Your task to perform on an android device: turn off airplane mode Image 0: 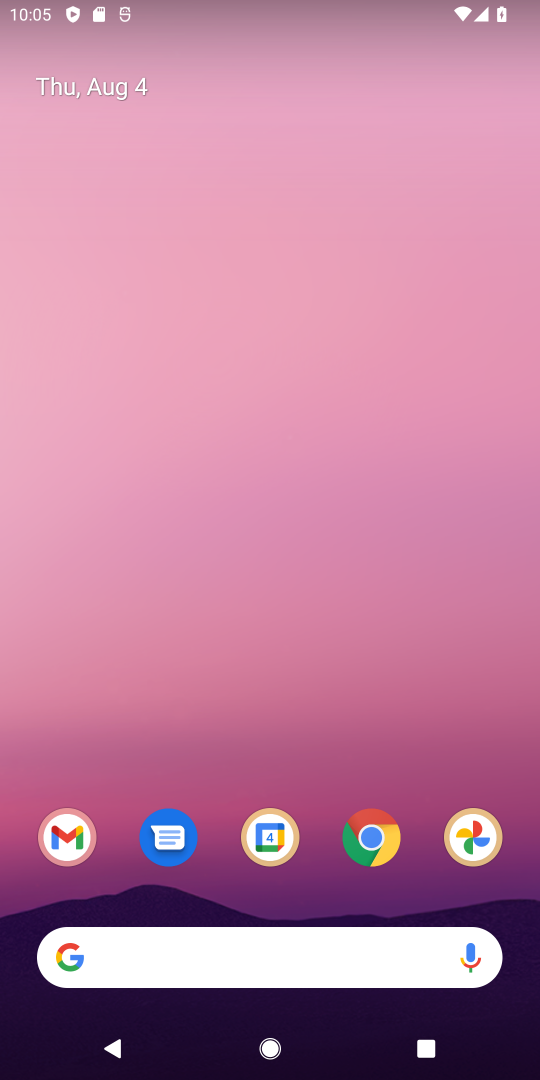
Step 0: drag from (416, 781) to (178, 49)
Your task to perform on an android device: turn off airplane mode Image 1: 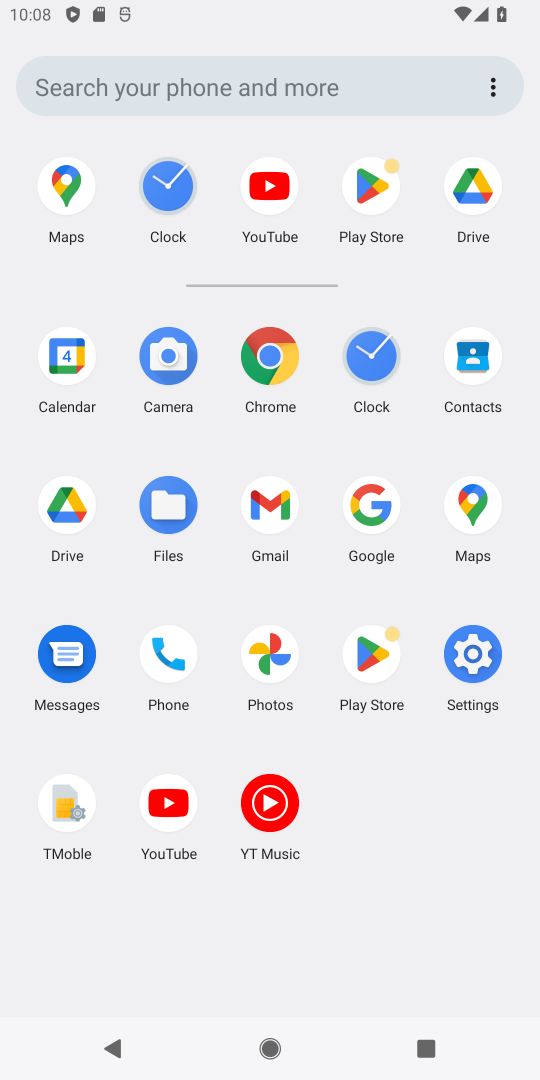
Step 1: task complete